Your task to perform on an android device: turn vacation reply on in the gmail app Image 0: 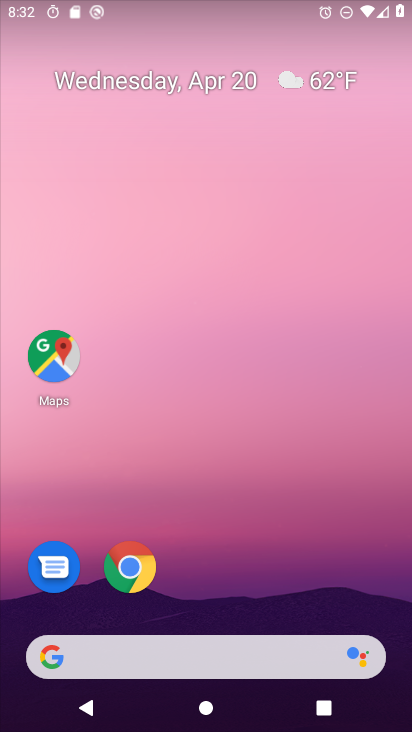
Step 0: drag from (331, 565) to (338, 59)
Your task to perform on an android device: turn vacation reply on in the gmail app Image 1: 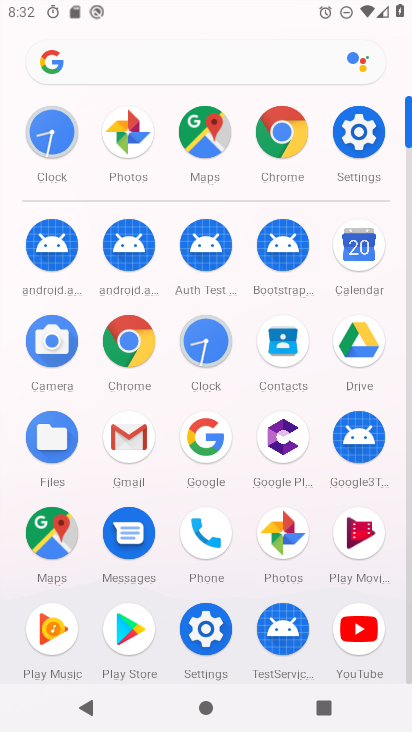
Step 1: click (125, 442)
Your task to perform on an android device: turn vacation reply on in the gmail app Image 2: 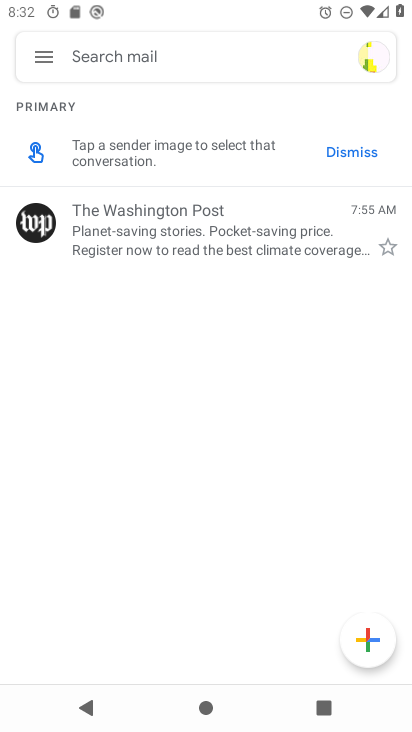
Step 2: click (42, 63)
Your task to perform on an android device: turn vacation reply on in the gmail app Image 3: 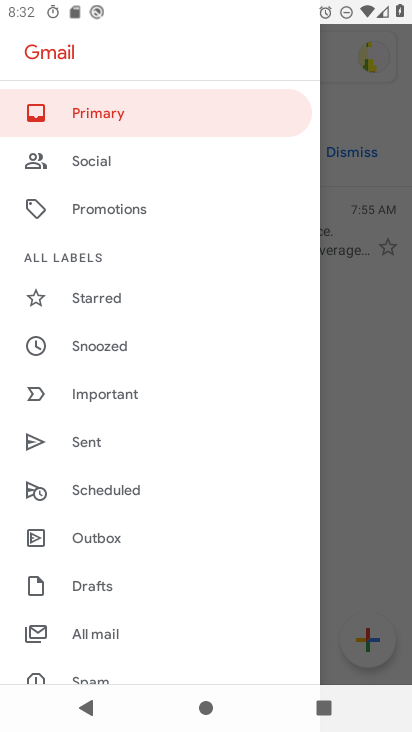
Step 3: drag from (186, 589) to (228, 205)
Your task to perform on an android device: turn vacation reply on in the gmail app Image 4: 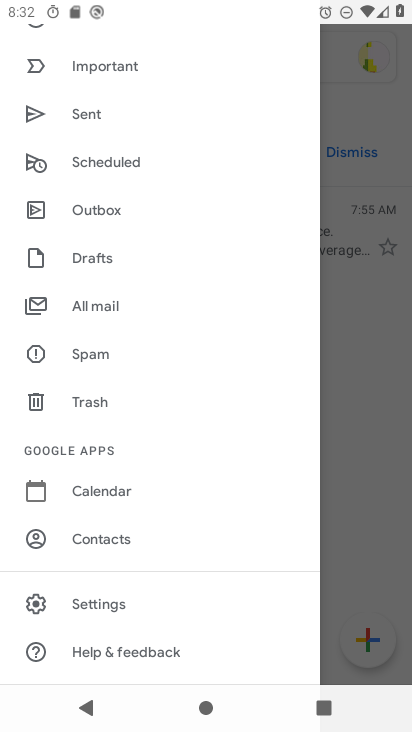
Step 4: click (97, 598)
Your task to perform on an android device: turn vacation reply on in the gmail app Image 5: 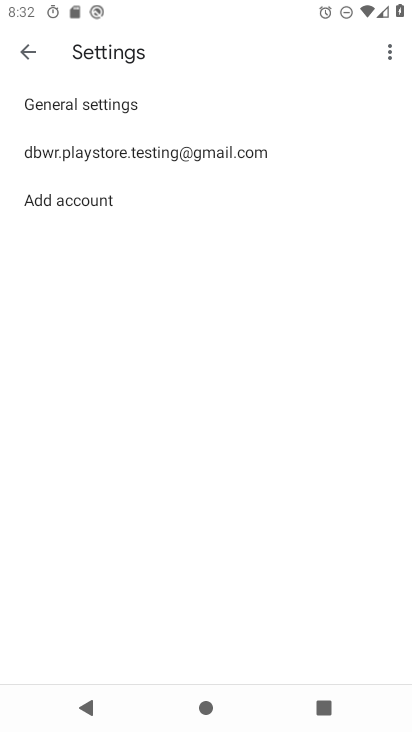
Step 5: click (82, 161)
Your task to perform on an android device: turn vacation reply on in the gmail app Image 6: 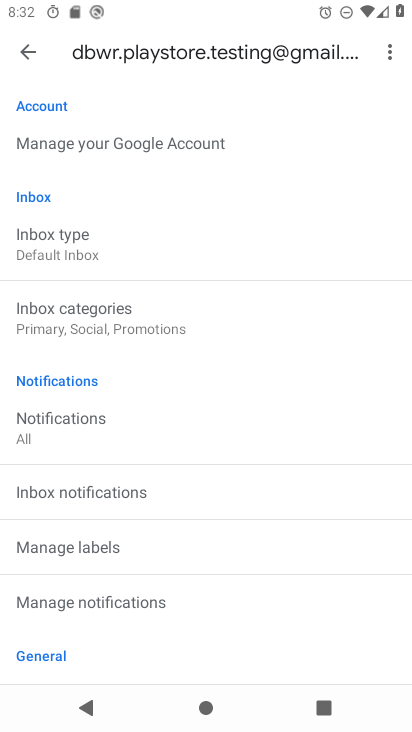
Step 6: drag from (337, 568) to (225, 145)
Your task to perform on an android device: turn vacation reply on in the gmail app Image 7: 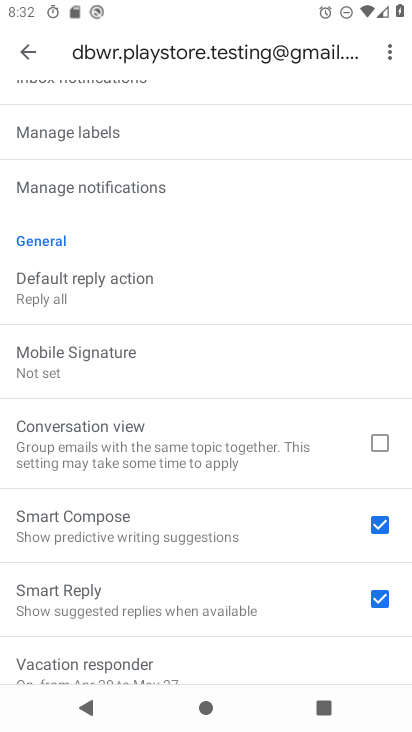
Step 7: click (43, 658)
Your task to perform on an android device: turn vacation reply on in the gmail app Image 8: 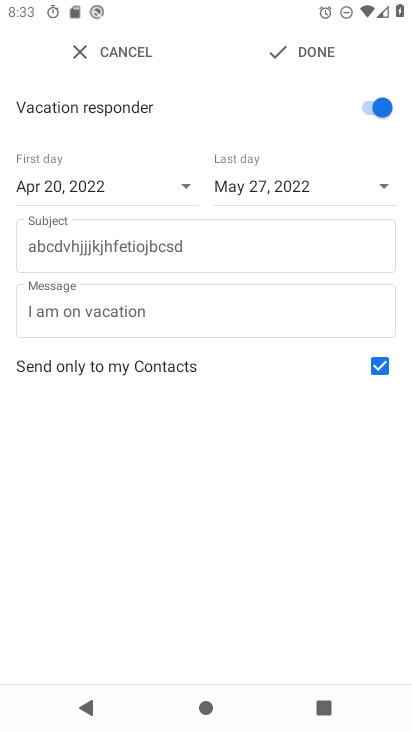
Step 8: click (288, 56)
Your task to perform on an android device: turn vacation reply on in the gmail app Image 9: 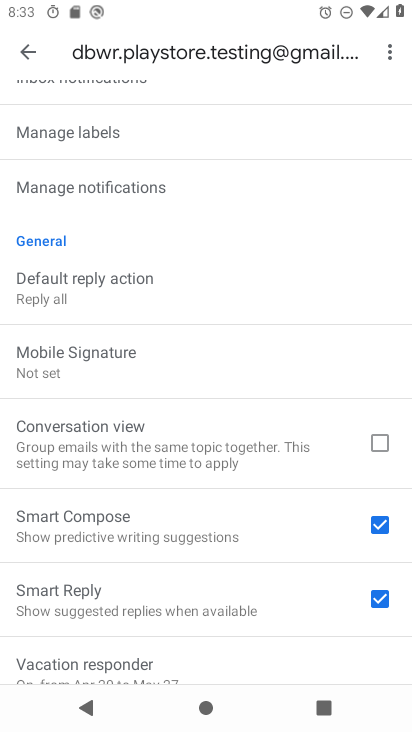
Step 9: task complete